Your task to perform on an android device: open a new tab in the chrome app Image 0: 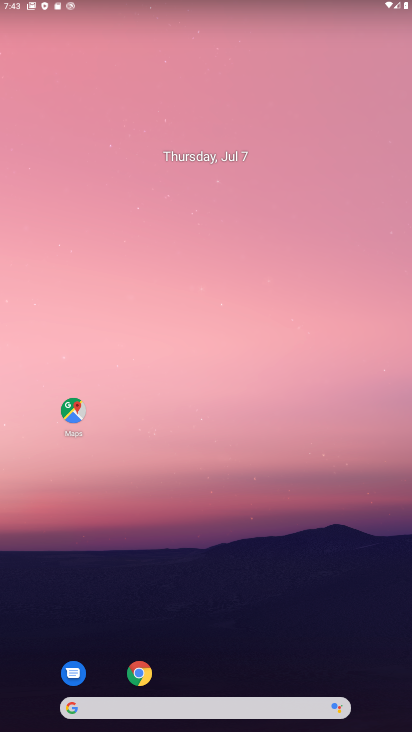
Step 0: drag from (210, 710) to (138, 36)
Your task to perform on an android device: open a new tab in the chrome app Image 1: 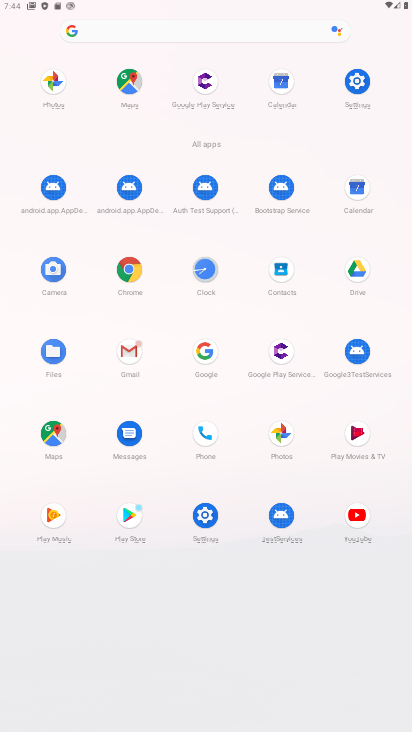
Step 1: click (136, 273)
Your task to perform on an android device: open a new tab in the chrome app Image 2: 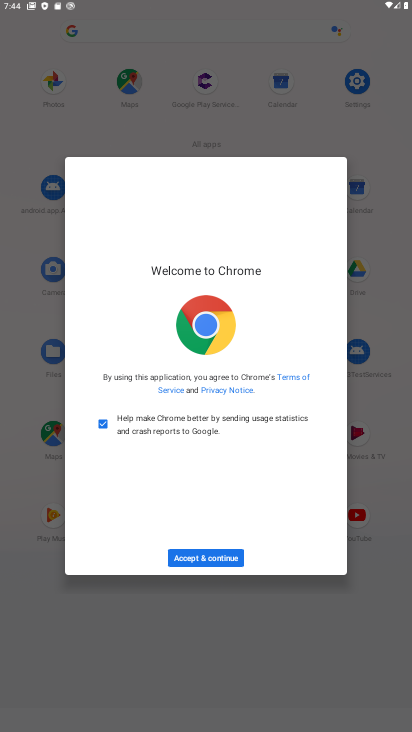
Step 2: click (179, 556)
Your task to perform on an android device: open a new tab in the chrome app Image 3: 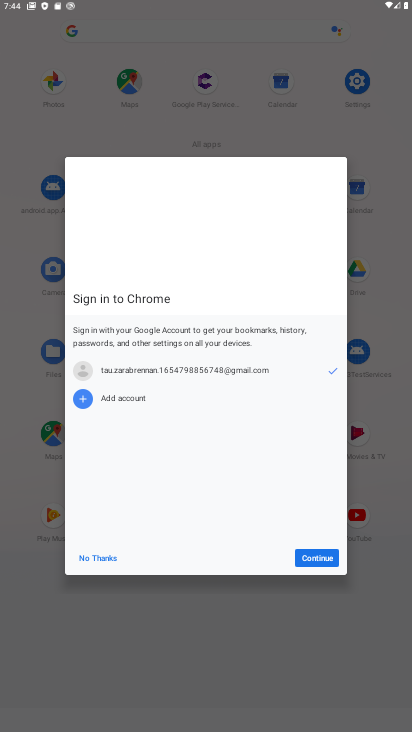
Step 3: click (304, 559)
Your task to perform on an android device: open a new tab in the chrome app Image 4: 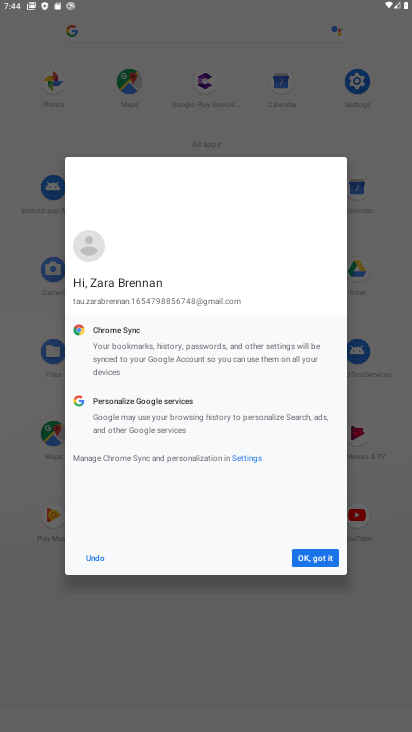
Step 4: click (333, 562)
Your task to perform on an android device: open a new tab in the chrome app Image 5: 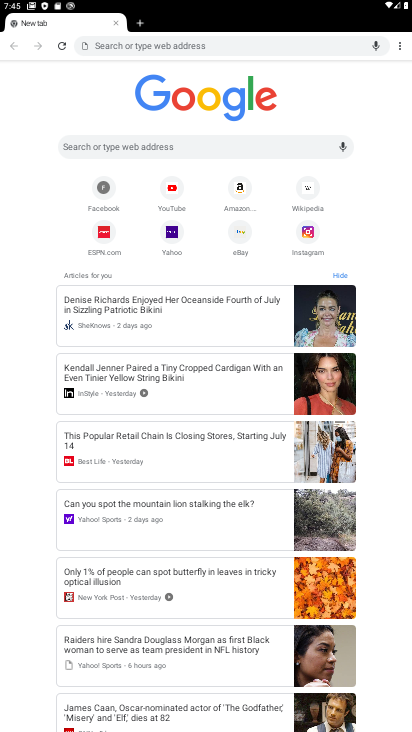
Step 5: click (139, 20)
Your task to perform on an android device: open a new tab in the chrome app Image 6: 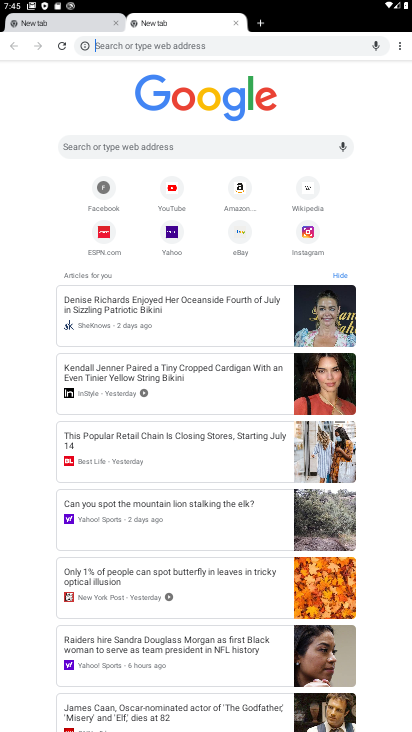
Step 6: task complete